Your task to perform on an android device: Go to wifi settings Image 0: 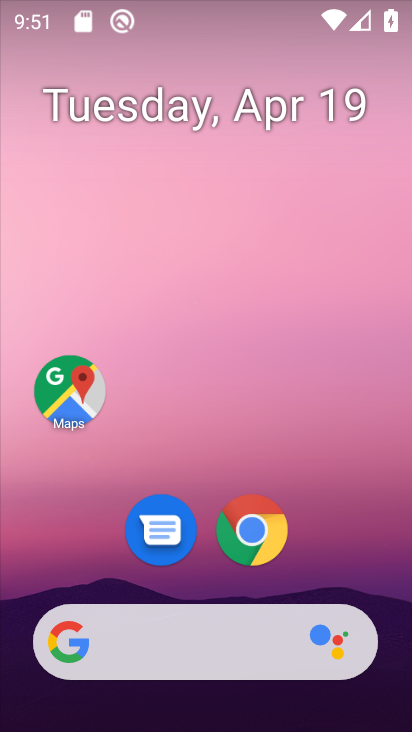
Step 0: drag from (364, 572) to (331, 325)
Your task to perform on an android device: Go to wifi settings Image 1: 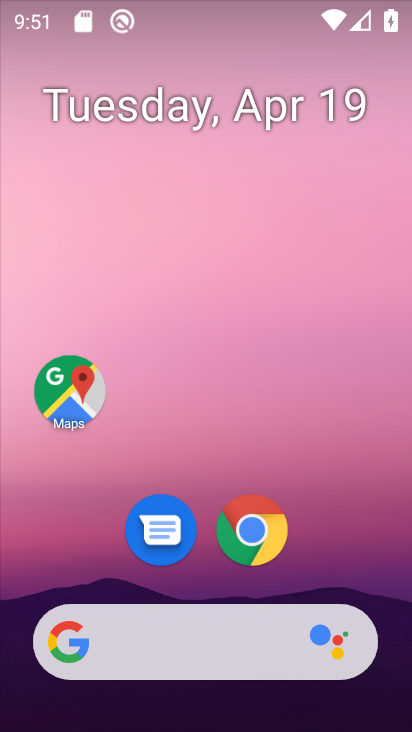
Step 1: drag from (326, 36) to (199, 731)
Your task to perform on an android device: Go to wifi settings Image 2: 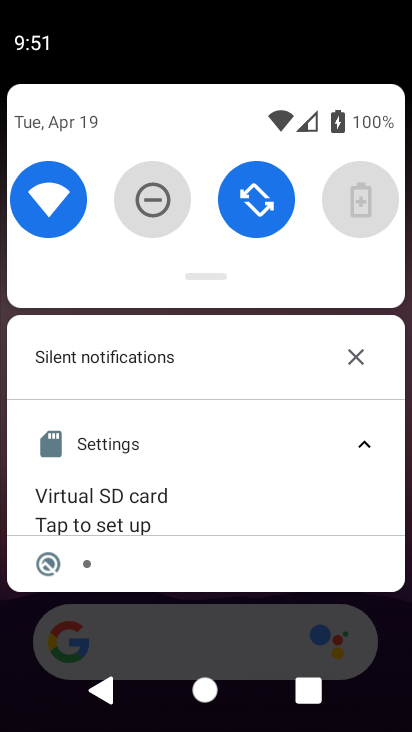
Step 2: click (44, 208)
Your task to perform on an android device: Go to wifi settings Image 3: 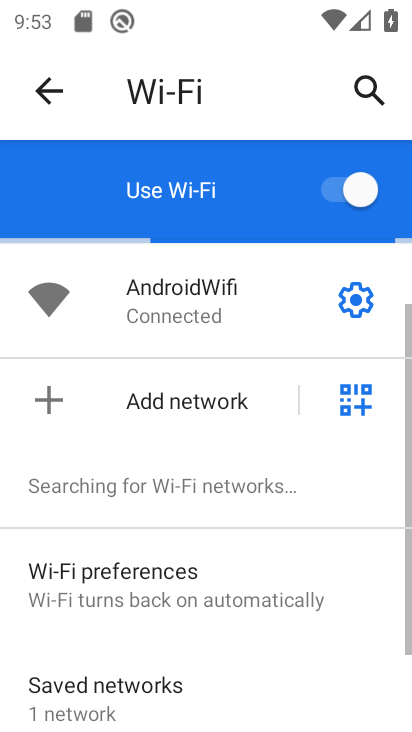
Step 3: task complete